Your task to perform on an android device: Go to ESPN.com Image 0: 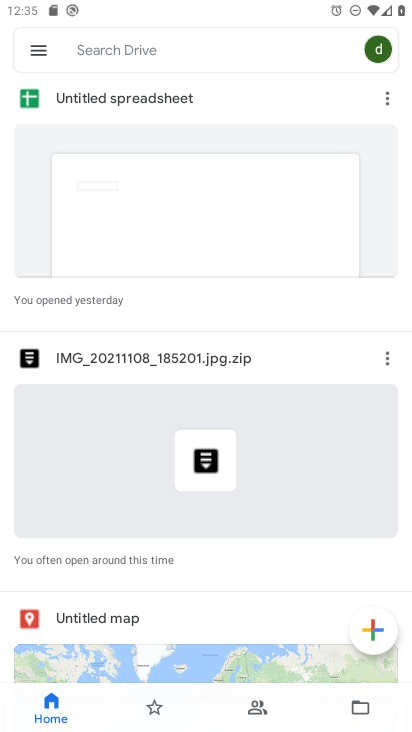
Step 0: press home button
Your task to perform on an android device: Go to ESPN.com Image 1: 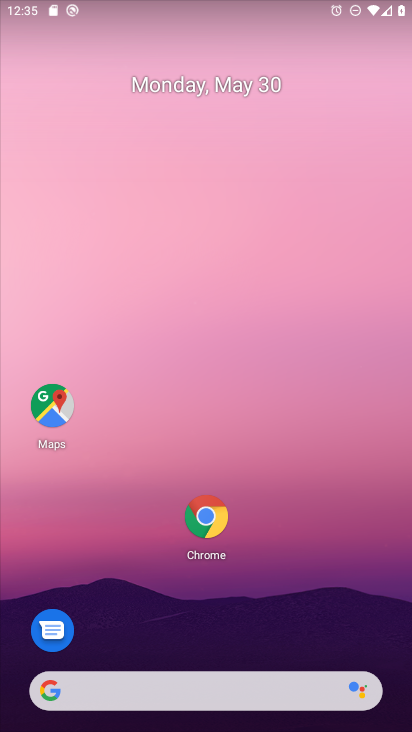
Step 1: click (211, 525)
Your task to perform on an android device: Go to ESPN.com Image 2: 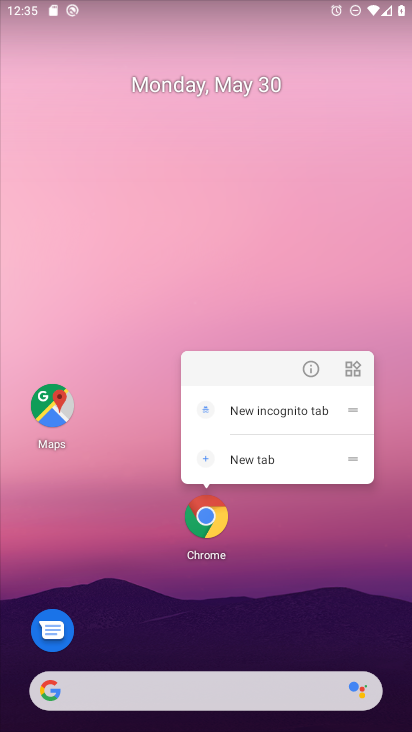
Step 2: click (205, 526)
Your task to perform on an android device: Go to ESPN.com Image 3: 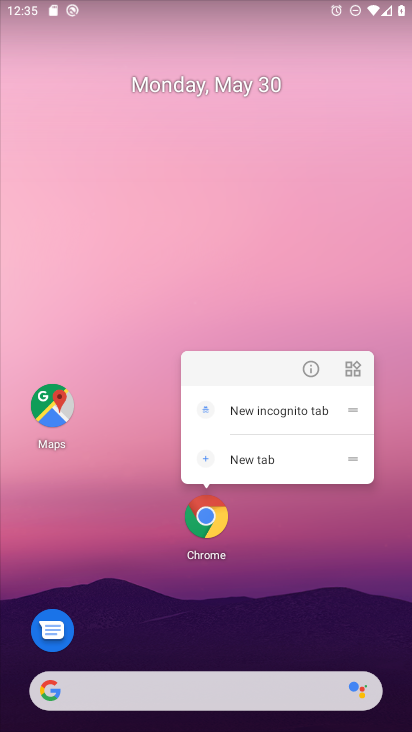
Step 3: click (193, 502)
Your task to perform on an android device: Go to ESPN.com Image 4: 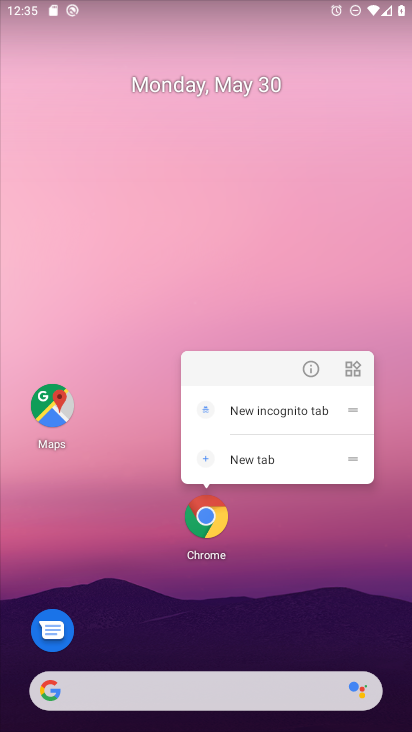
Step 4: click (216, 522)
Your task to perform on an android device: Go to ESPN.com Image 5: 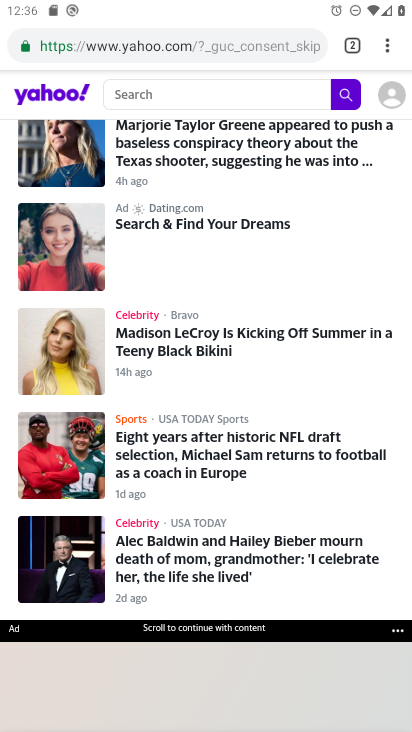
Step 5: drag from (386, 46) to (307, 100)
Your task to perform on an android device: Go to ESPN.com Image 6: 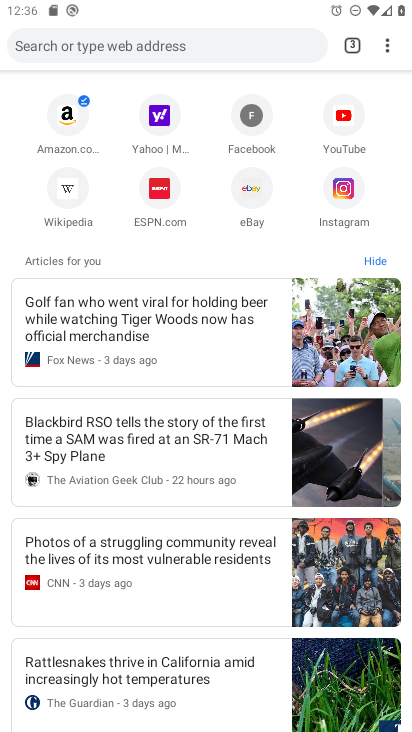
Step 6: click (159, 185)
Your task to perform on an android device: Go to ESPN.com Image 7: 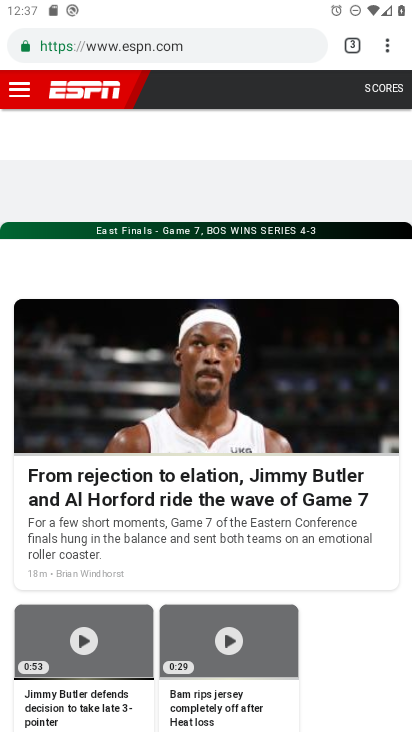
Step 7: task complete